Your task to perform on an android device: What's US dollar exchange rate against the South Korean Won? Image 0: 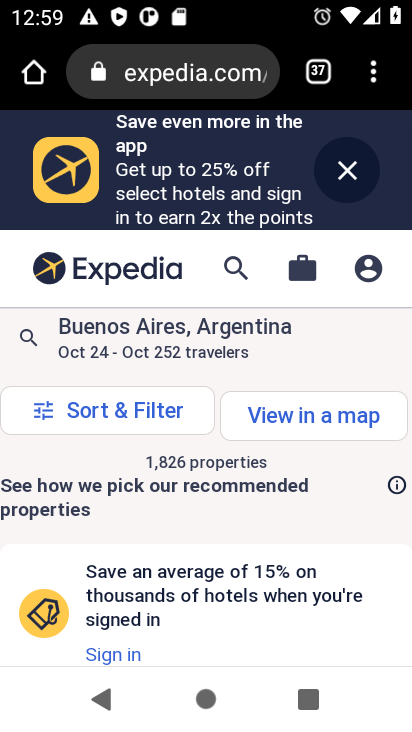
Step 0: press home button
Your task to perform on an android device: What's US dollar exchange rate against the South Korean Won? Image 1: 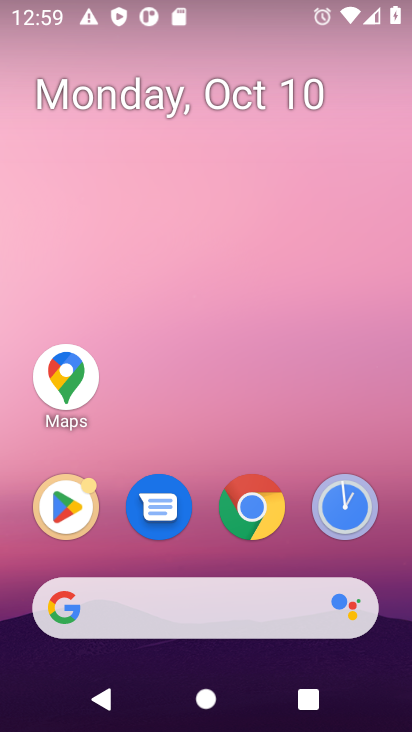
Step 1: press home button
Your task to perform on an android device: What's US dollar exchange rate against the South Korean Won? Image 2: 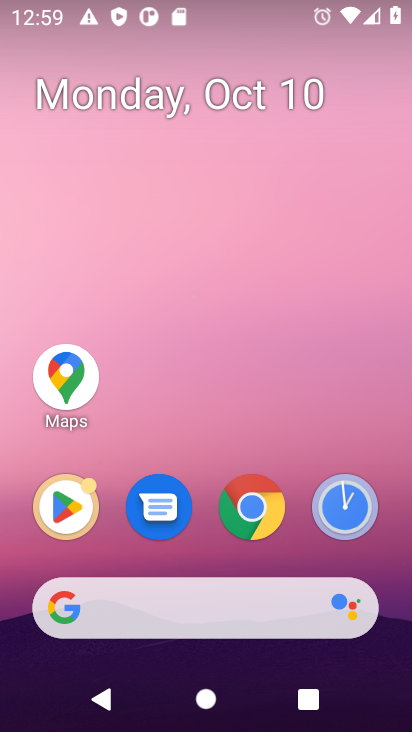
Step 2: click (269, 612)
Your task to perform on an android device: What's US dollar exchange rate against the South Korean Won? Image 3: 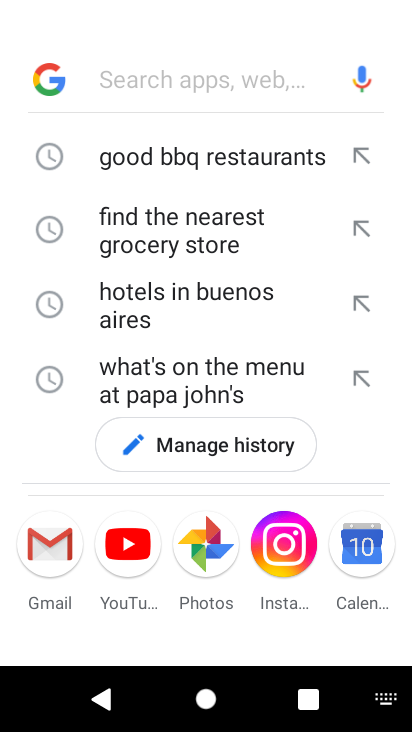
Step 3: type "What's US dollar exchange rate against the South Korean Won"
Your task to perform on an android device: What's US dollar exchange rate against the South Korean Won? Image 4: 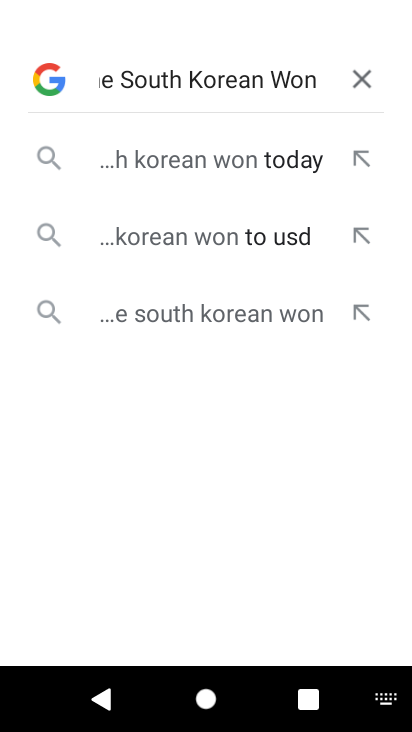
Step 4: press enter
Your task to perform on an android device: What's US dollar exchange rate against the South Korean Won? Image 5: 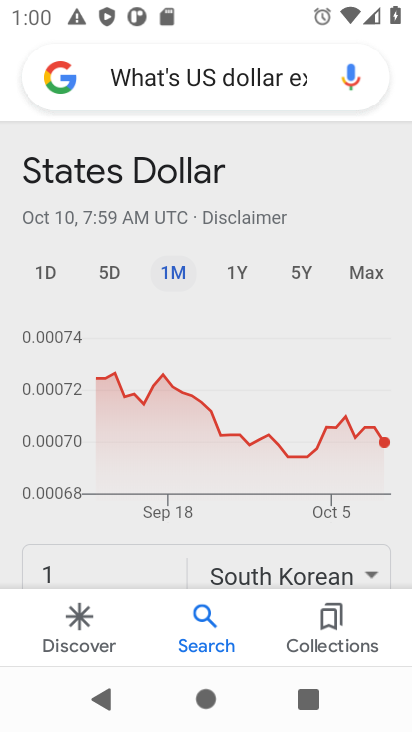
Step 5: task complete